Your task to perform on an android device: Open Google Chrome Image 0: 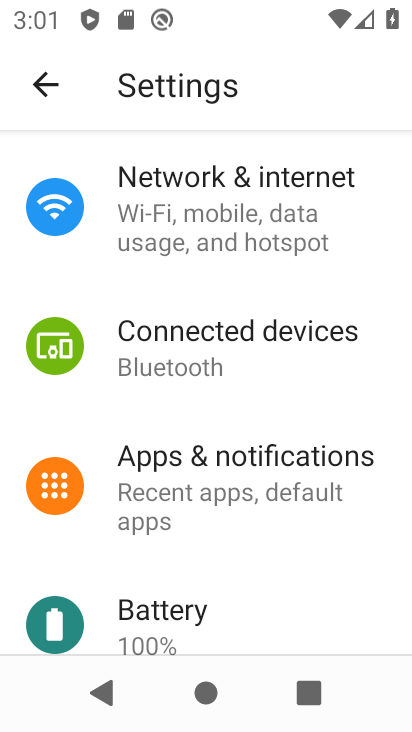
Step 0: press home button
Your task to perform on an android device: Open Google Chrome Image 1: 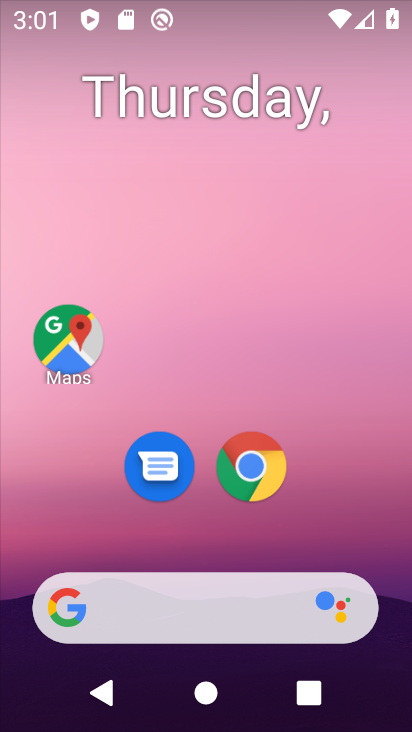
Step 1: click (246, 482)
Your task to perform on an android device: Open Google Chrome Image 2: 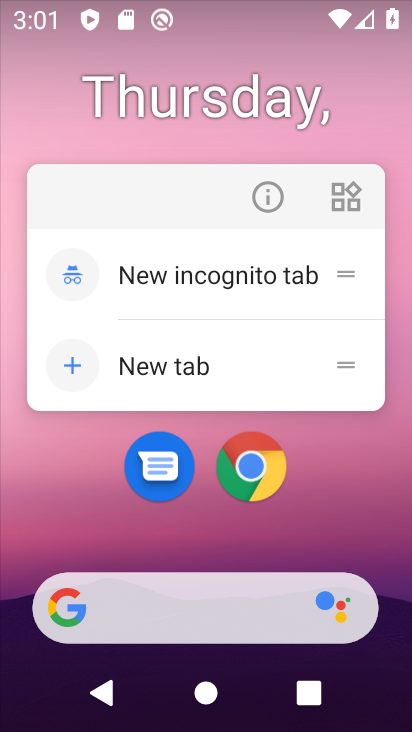
Step 2: click (249, 468)
Your task to perform on an android device: Open Google Chrome Image 3: 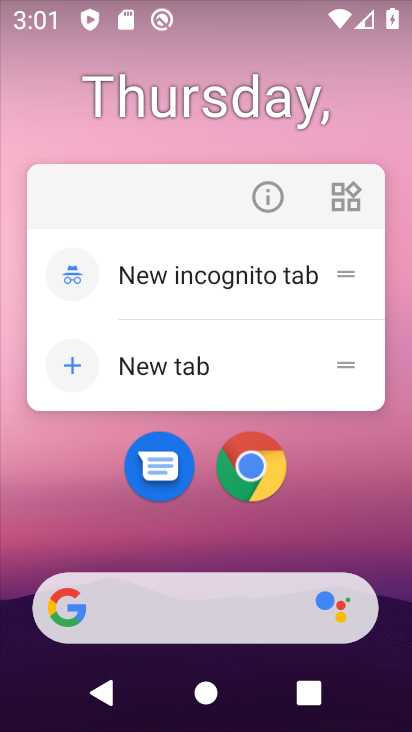
Step 3: click (253, 467)
Your task to perform on an android device: Open Google Chrome Image 4: 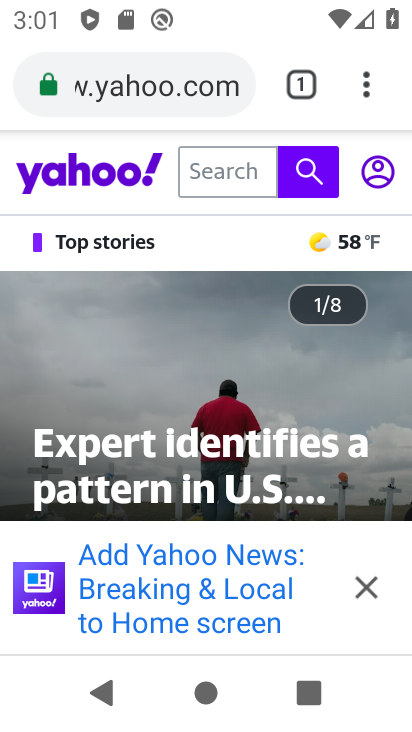
Step 4: click (298, 88)
Your task to perform on an android device: Open Google Chrome Image 5: 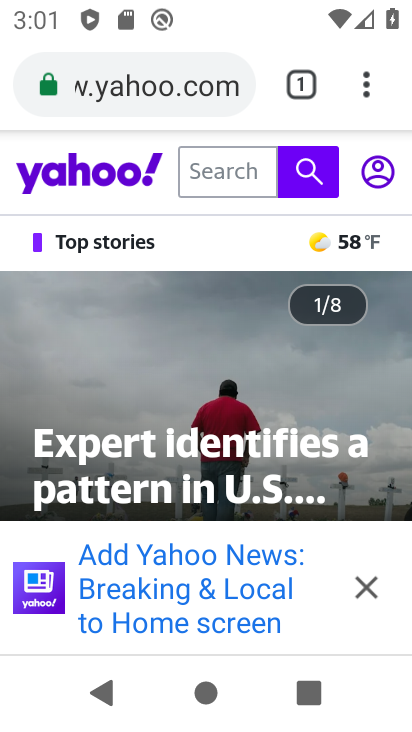
Step 5: task complete